Your task to perform on an android device: turn off sleep mode Image 0: 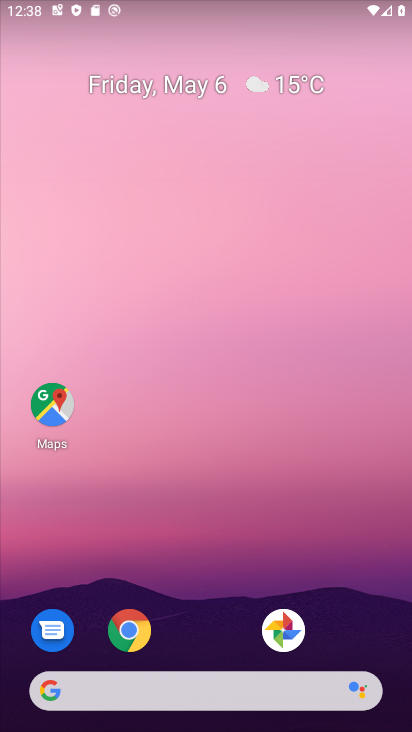
Step 0: drag from (224, 533) to (242, 3)
Your task to perform on an android device: turn off sleep mode Image 1: 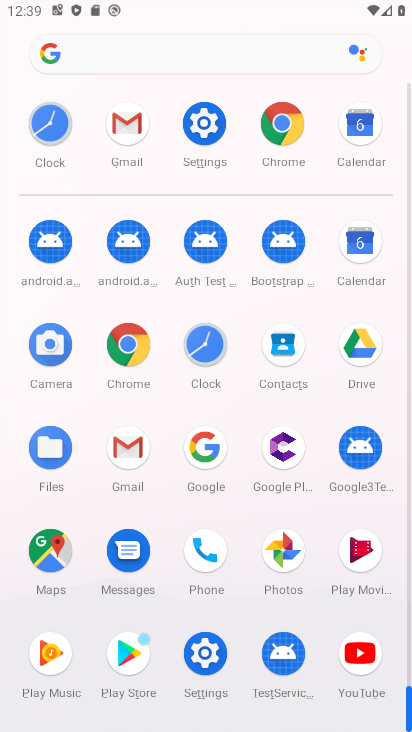
Step 1: click (200, 116)
Your task to perform on an android device: turn off sleep mode Image 2: 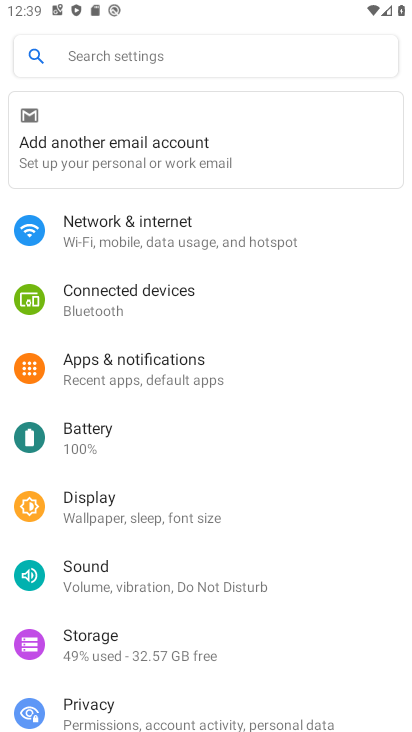
Step 2: click (160, 512)
Your task to perform on an android device: turn off sleep mode Image 3: 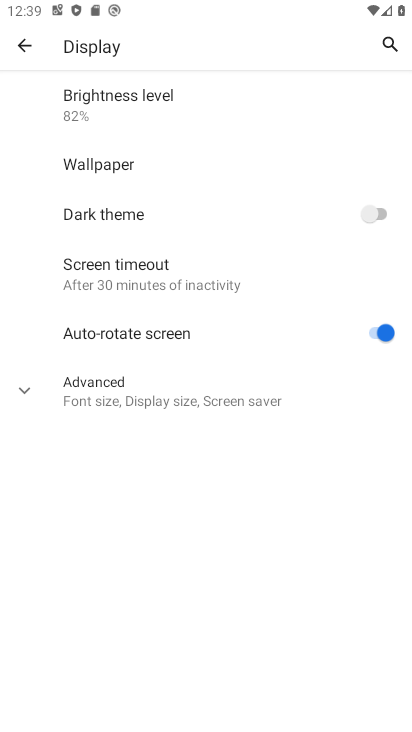
Step 3: task complete